Your task to perform on an android device: Go to Android settings Image 0: 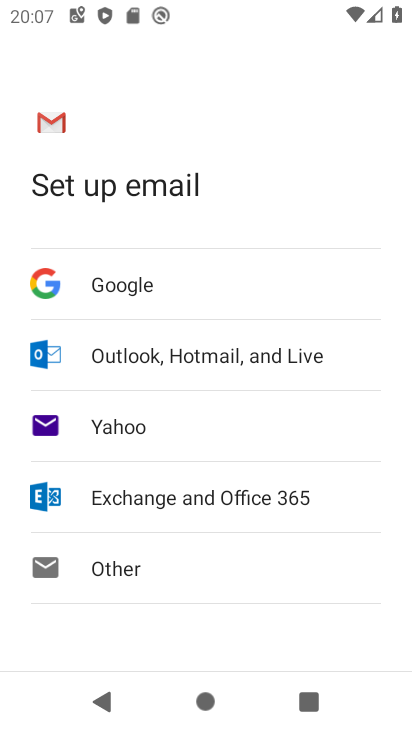
Step 0: press home button
Your task to perform on an android device: Go to Android settings Image 1: 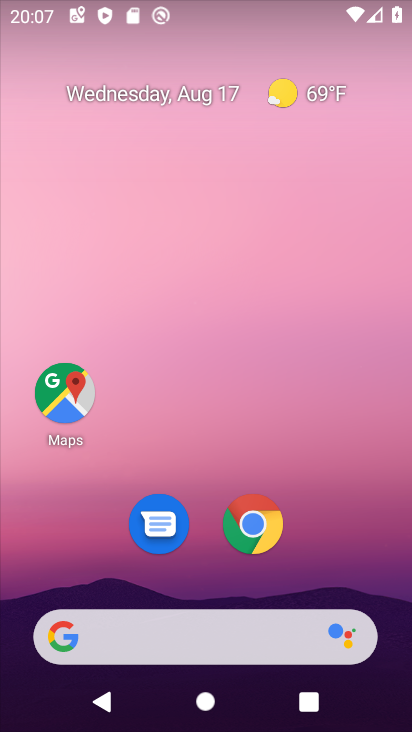
Step 1: drag from (333, 555) to (361, 28)
Your task to perform on an android device: Go to Android settings Image 2: 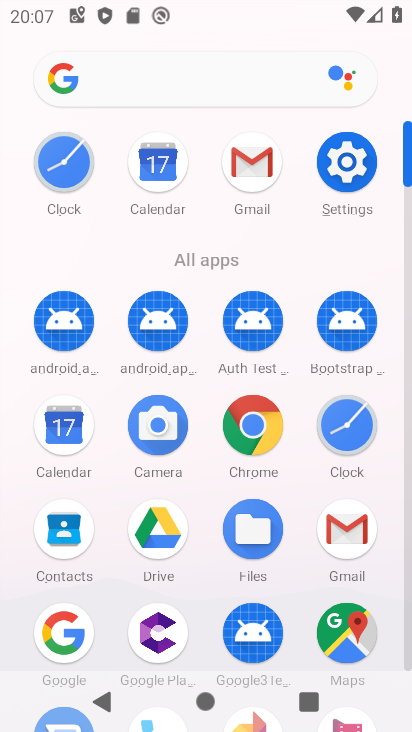
Step 2: click (346, 162)
Your task to perform on an android device: Go to Android settings Image 3: 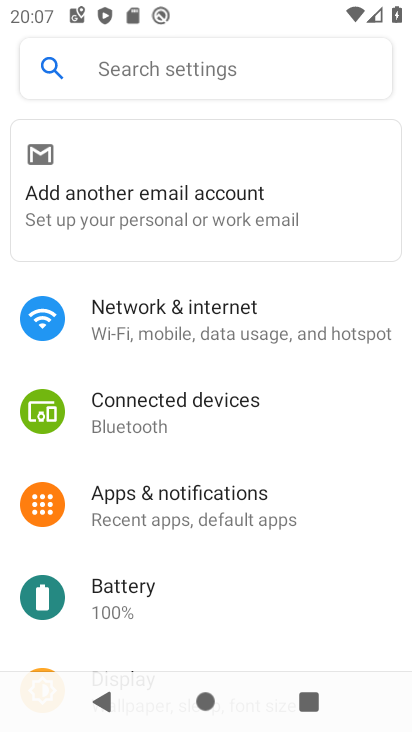
Step 3: drag from (335, 469) to (330, 1)
Your task to perform on an android device: Go to Android settings Image 4: 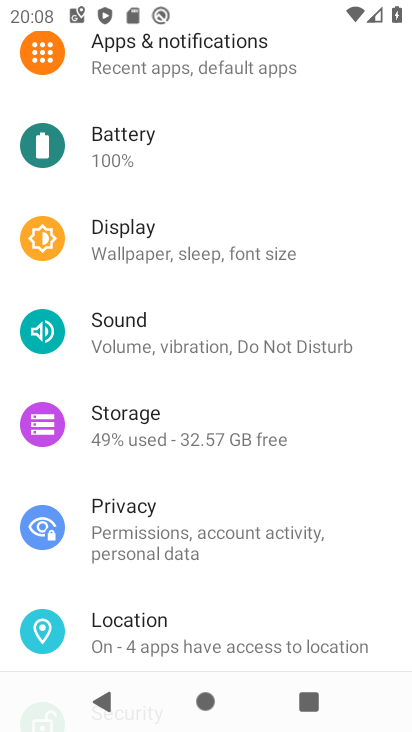
Step 4: drag from (262, 484) to (294, 0)
Your task to perform on an android device: Go to Android settings Image 5: 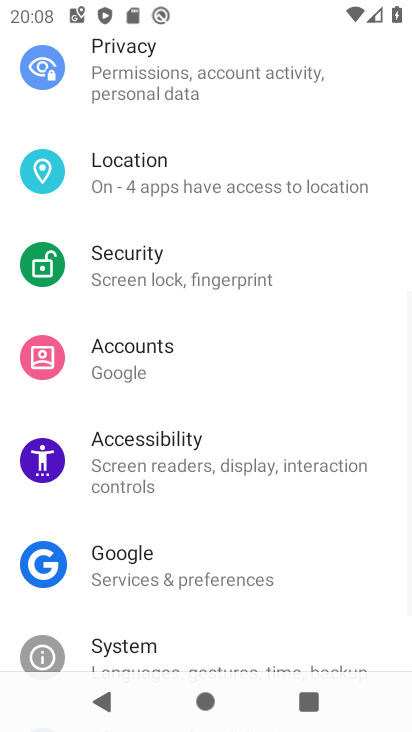
Step 5: drag from (249, 398) to (247, 0)
Your task to perform on an android device: Go to Android settings Image 6: 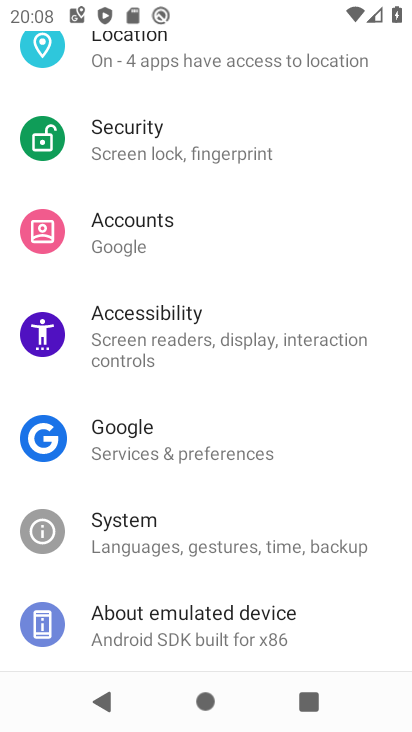
Step 6: click (228, 628)
Your task to perform on an android device: Go to Android settings Image 7: 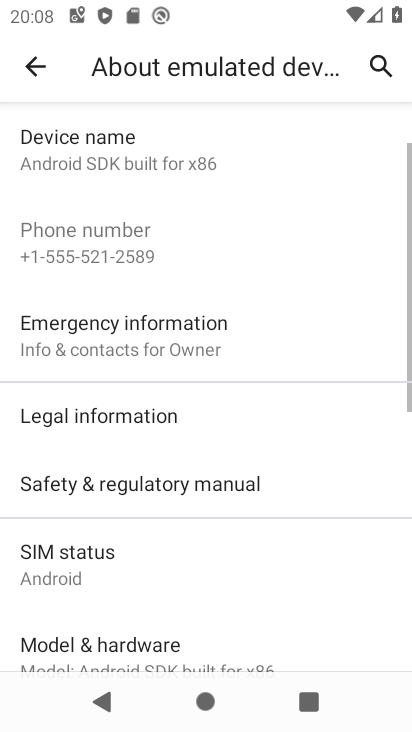
Step 7: task complete